Your task to perform on an android device: Go to location settings Image 0: 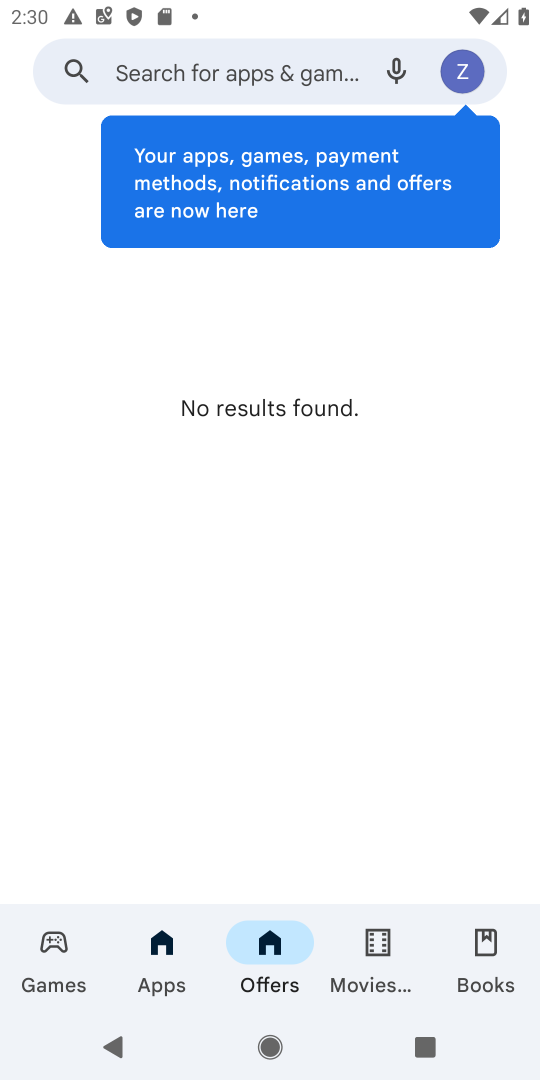
Step 0: press back button
Your task to perform on an android device: Go to location settings Image 1: 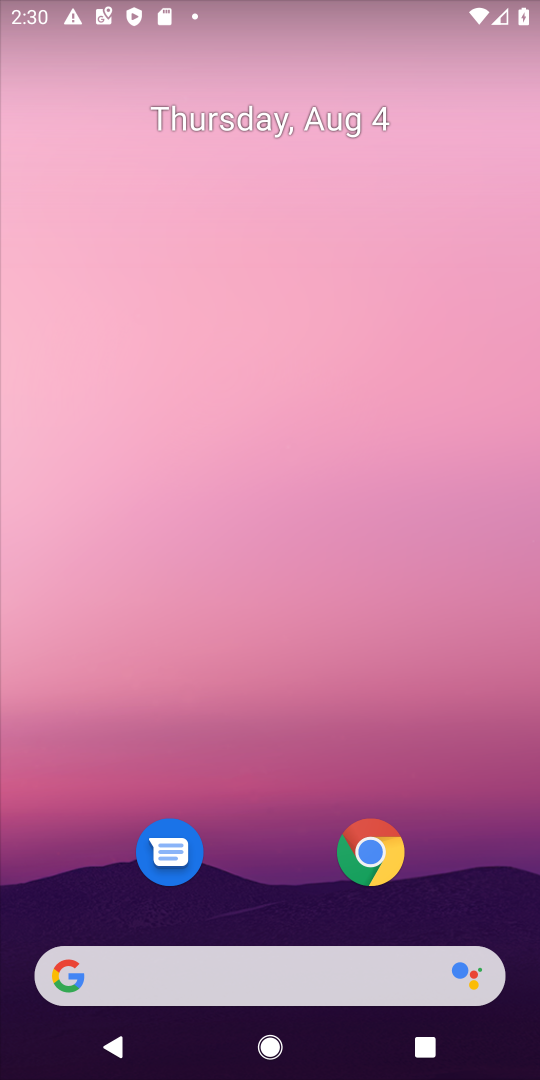
Step 1: drag from (268, 879) to (362, 0)
Your task to perform on an android device: Go to location settings Image 2: 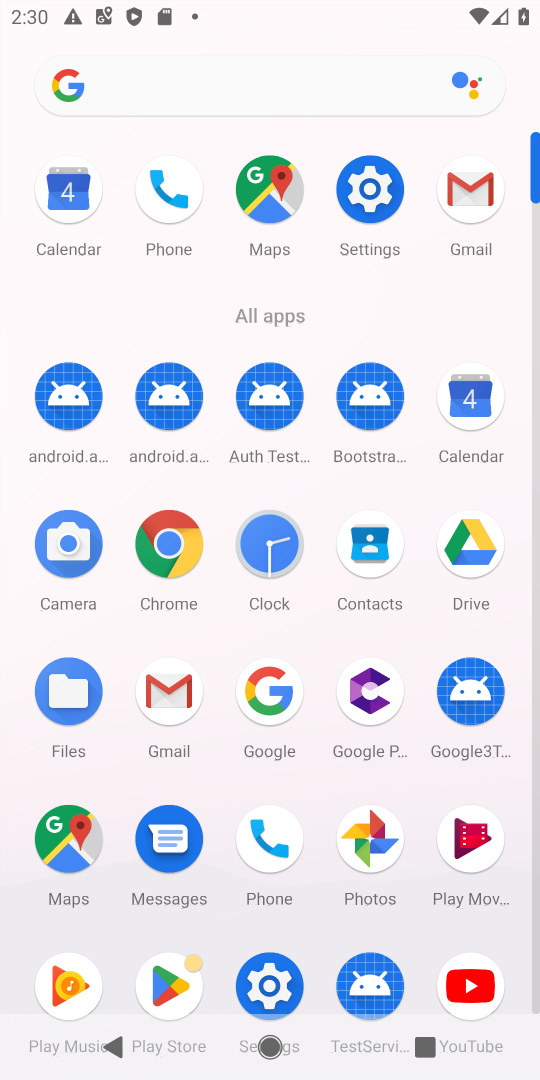
Step 2: click (366, 197)
Your task to perform on an android device: Go to location settings Image 3: 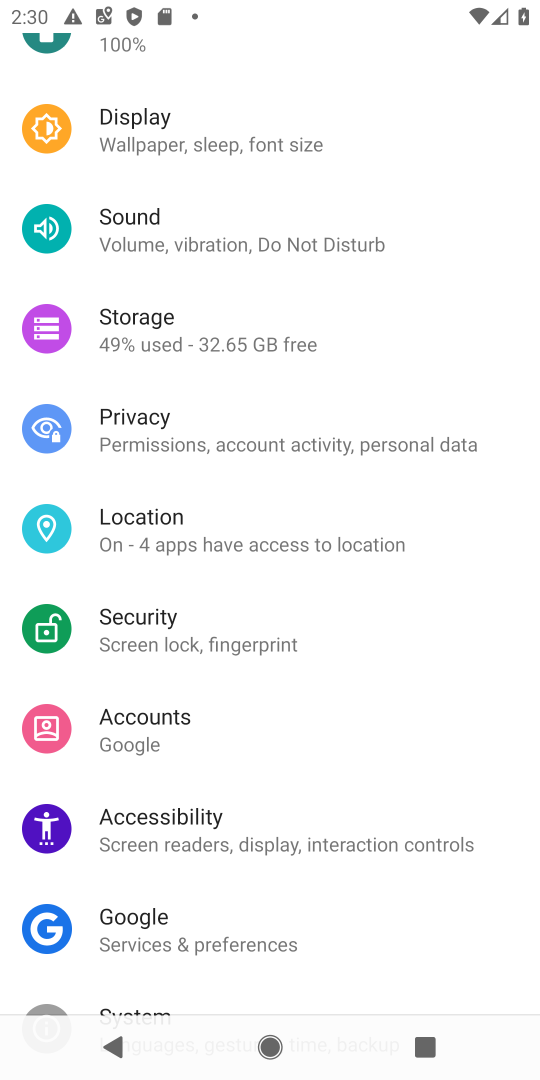
Step 3: click (200, 536)
Your task to perform on an android device: Go to location settings Image 4: 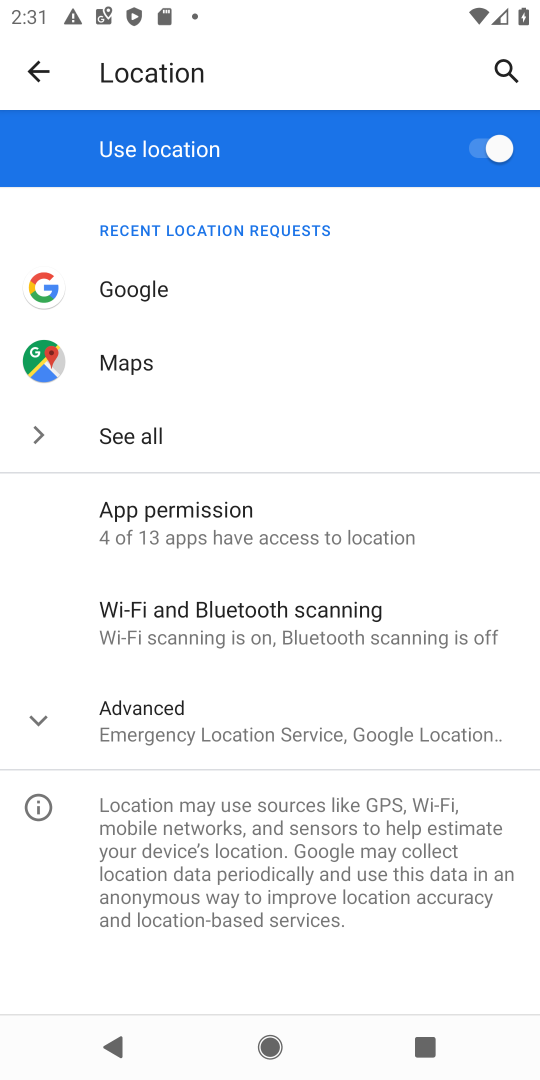
Step 4: task complete